Your task to perform on an android device: open sync settings in chrome Image 0: 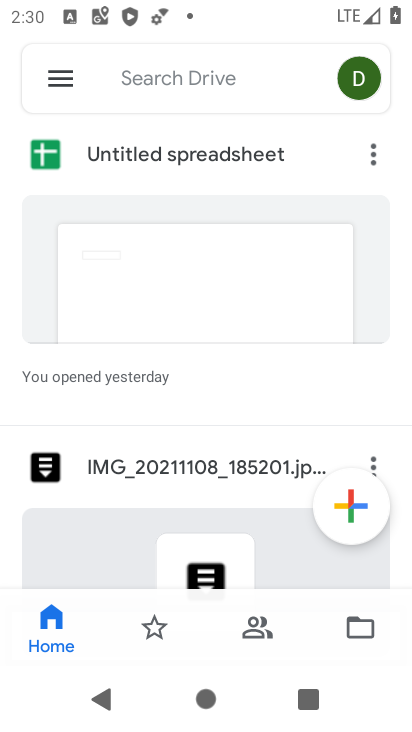
Step 0: press home button
Your task to perform on an android device: open sync settings in chrome Image 1: 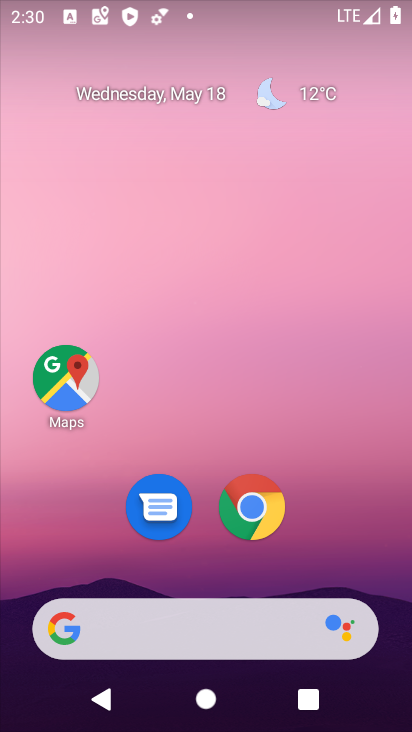
Step 1: click (255, 509)
Your task to perform on an android device: open sync settings in chrome Image 2: 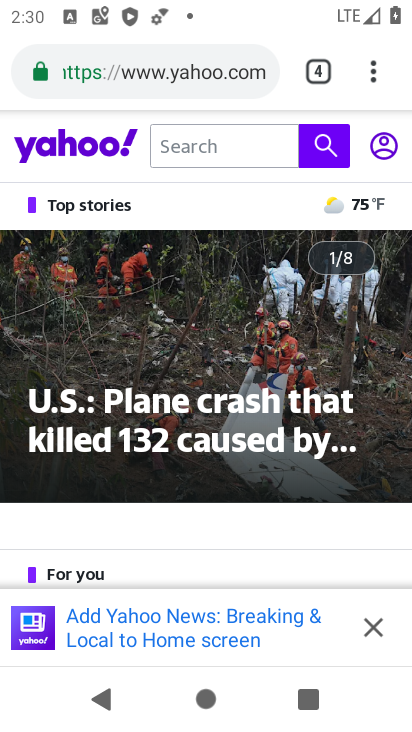
Step 2: click (372, 77)
Your task to perform on an android device: open sync settings in chrome Image 3: 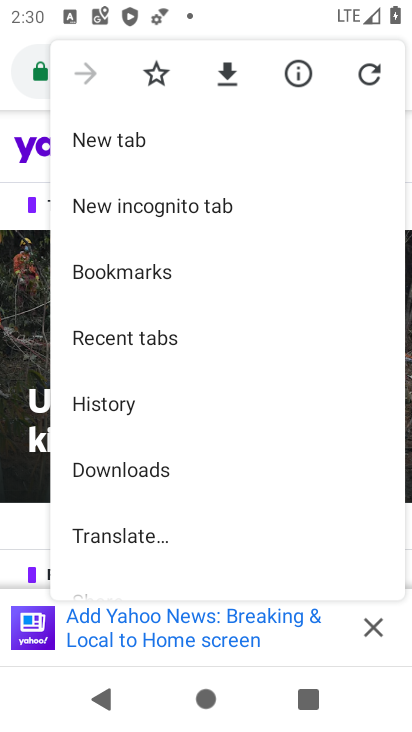
Step 3: drag from (195, 522) to (239, 207)
Your task to perform on an android device: open sync settings in chrome Image 4: 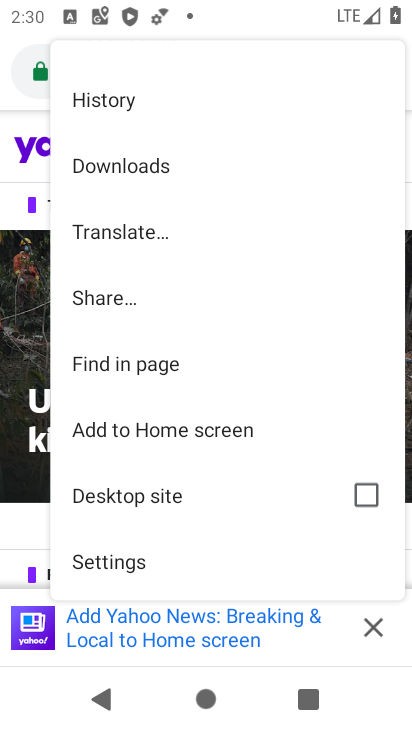
Step 4: drag from (210, 510) to (242, 262)
Your task to perform on an android device: open sync settings in chrome Image 5: 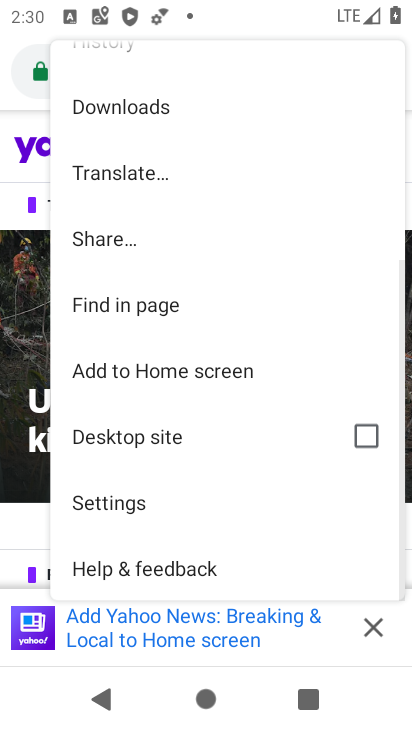
Step 5: click (114, 506)
Your task to perform on an android device: open sync settings in chrome Image 6: 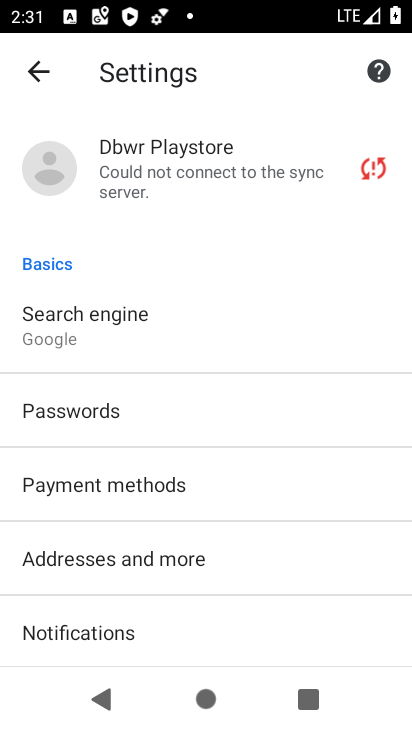
Step 6: click (138, 156)
Your task to perform on an android device: open sync settings in chrome Image 7: 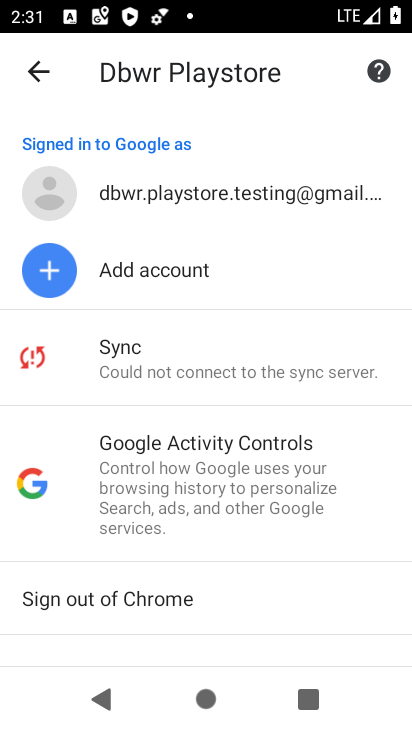
Step 7: click (136, 361)
Your task to perform on an android device: open sync settings in chrome Image 8: 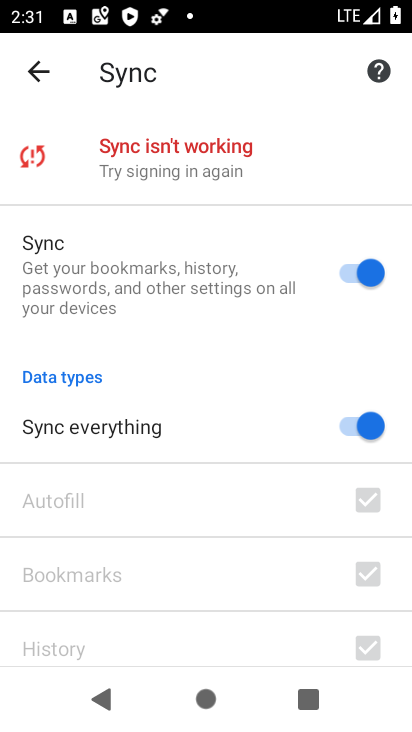
Step 8: task complete